Your task to perform on an android device: add a label to a message in the gmail app Image 0: 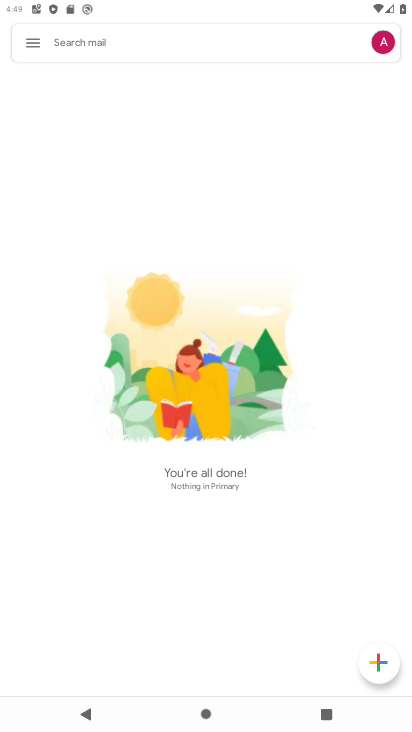
Step 0: press home button
Your task to perform on an android device: add a label to a message in the gmail app Image 1: 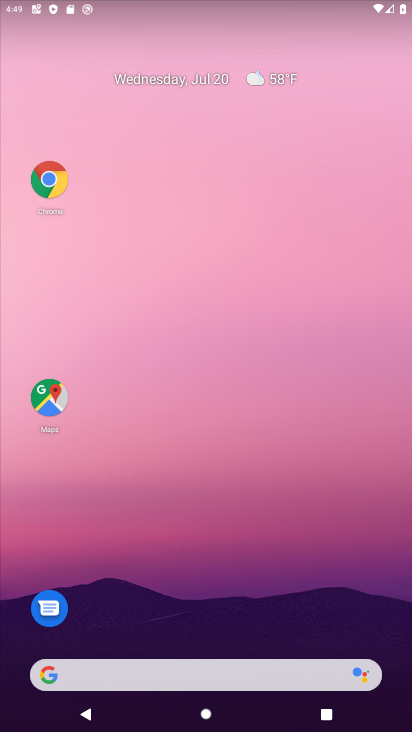
Step 1: drag from (182, 635) to (142, 188)
Your task to perform on an android device: add a label to a message in the gmail app Image 2: 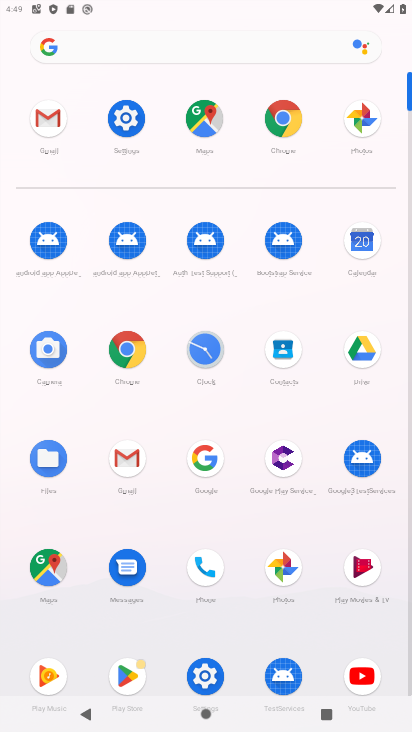
Step 2: click (121, 463)
Your task to perform on an android device: add a label to a message in the gmail app Image 3: 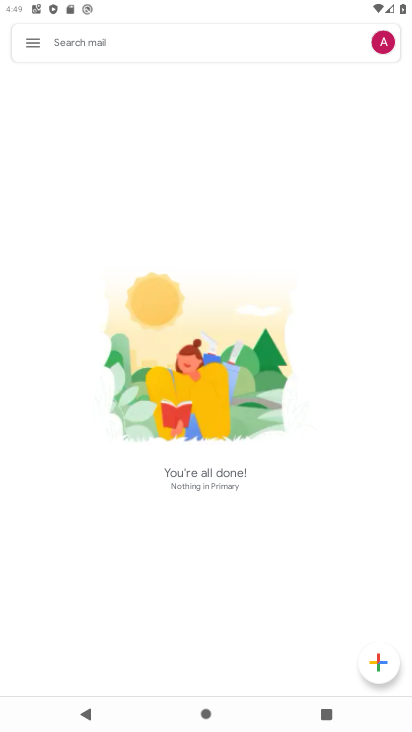
Step 3: click (33, 42)
Your task to perform on an android device: add a label to a message in the gmail app Image 4: 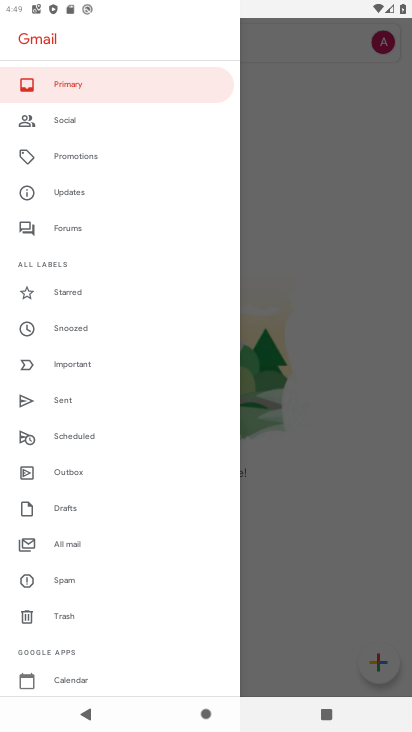
Step 4: click (309, 178)
Your task to perform on an android device: add a label to a message in the gmail app Image 5: 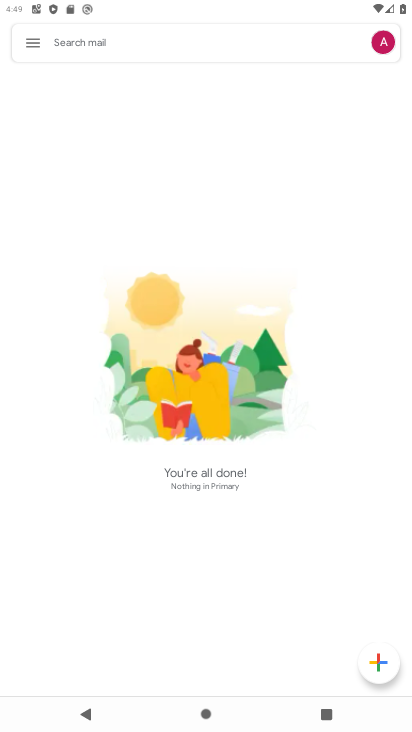
Step 5: task complete